Your task to perform on an android device: Open the phone app and click the voicemail tab. Image 0: 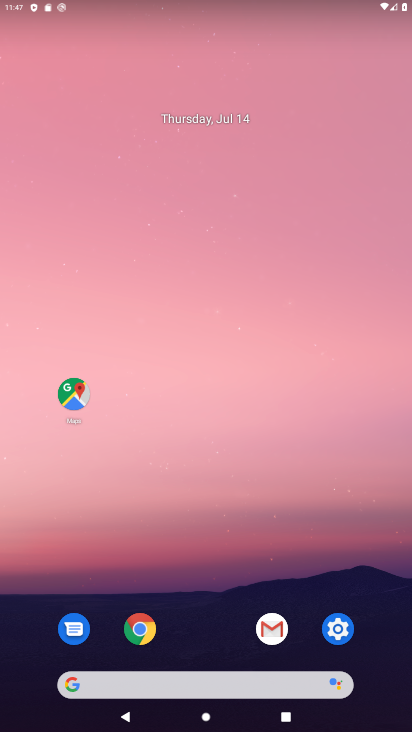
Step 0: press home button
Your task to perform on an android device: Open the phone app and click the voicemail tab. Image 1: 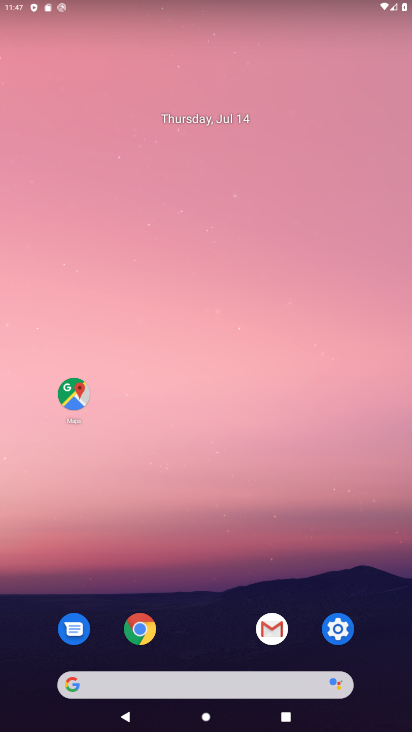
Step 1: drag from (317, 703) to (254, 298)
Your task to perform on an android device: Open the phone app and click the voicemail tab. Image 2: 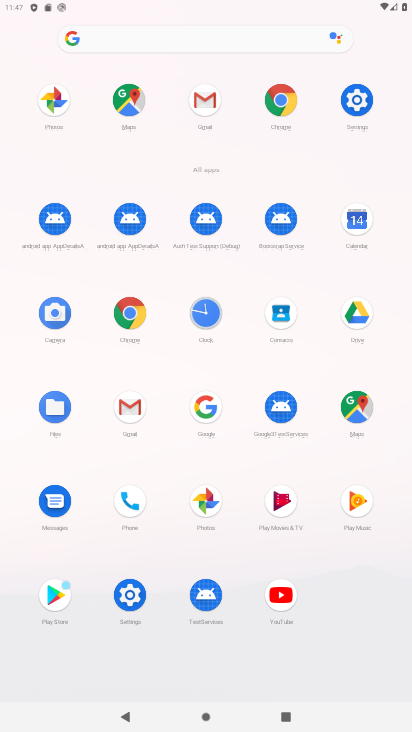
Step 2: click (137, 494)
Your task to perform on an android device: Open the phone app and click the voicemail tab. Image 3: 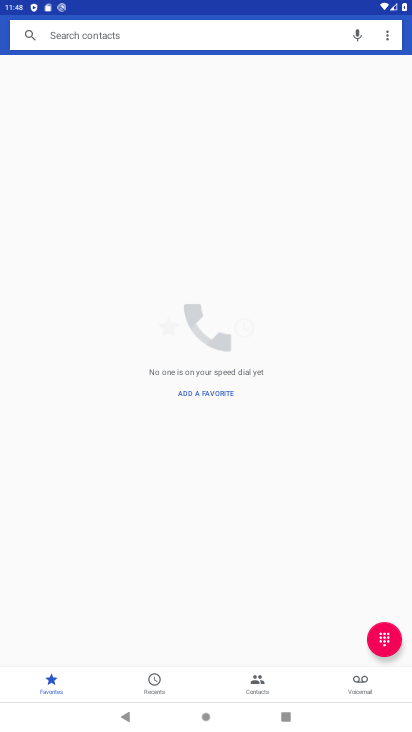
Step 3: click (366, 687)
Your task to perform on an android device: Open the phone app and click the voicemail tab. Image 4: 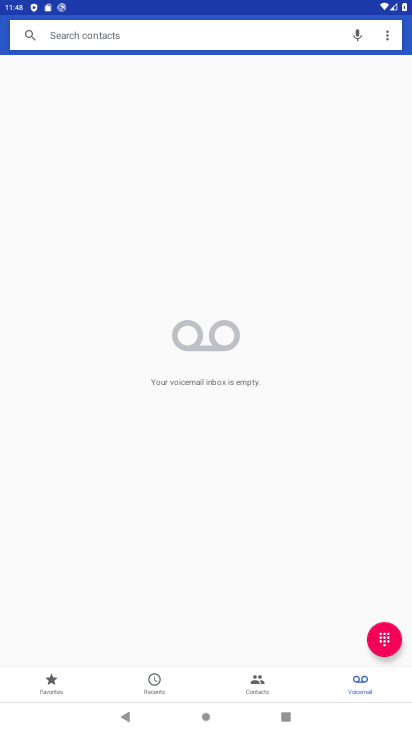
Step 4: task complete